Your task to perform on an android device: turn on sleep mode Image 0: 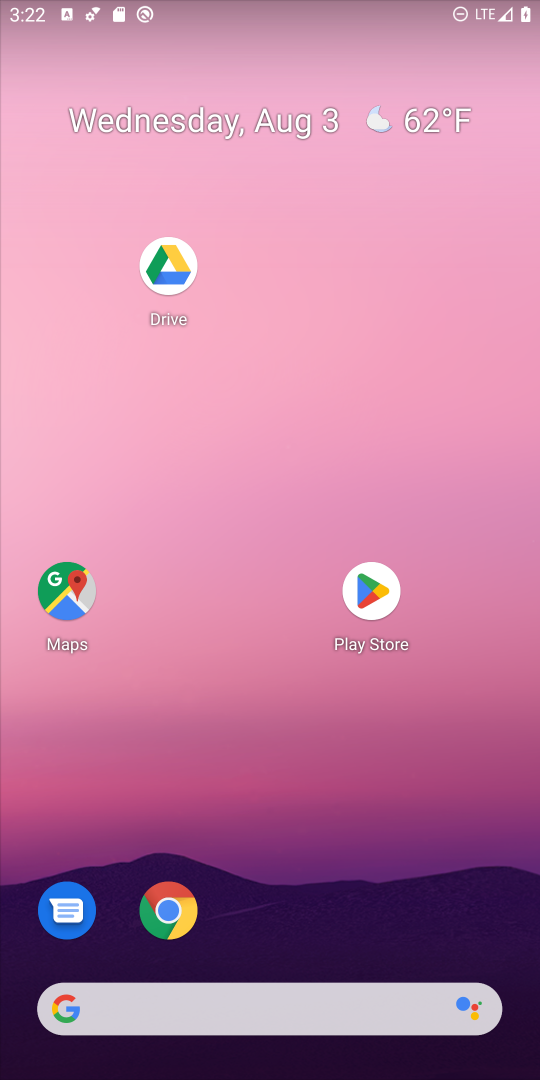
Step 0: drag from (332, 645) to (400, 0)
Your task to perform on an android device: turn on sleep mode Image 1: 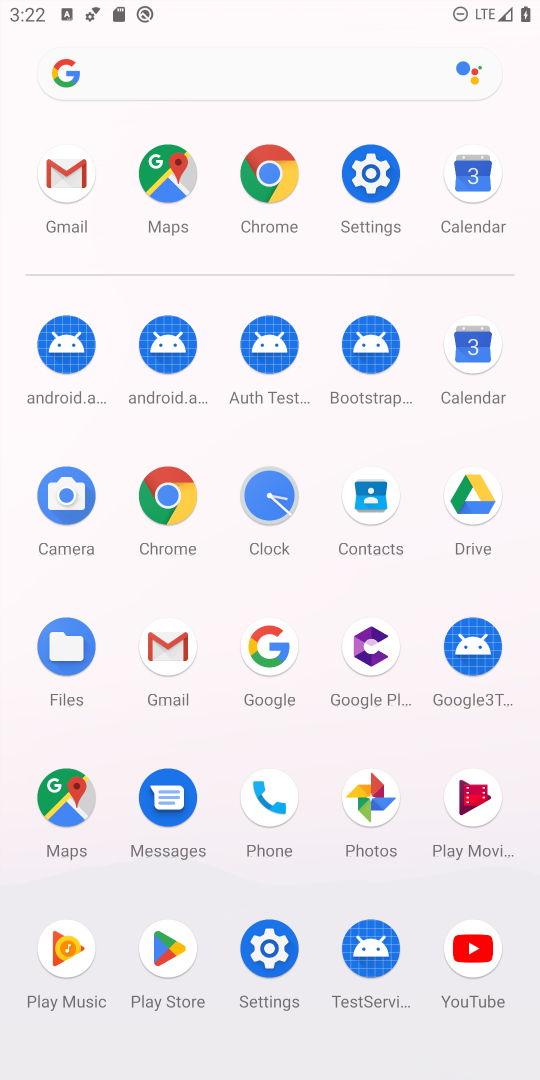
Step 1: click (381, 177)
Your task to perform on an android device: turn on sleep mode Image 2: 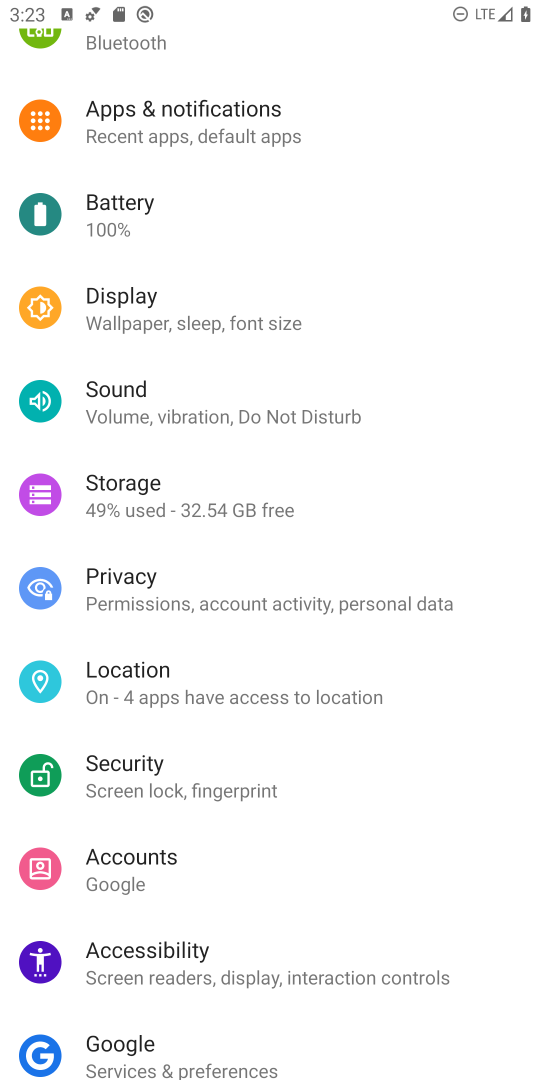
Step 2: click (217, 315)
Your task to perform on an android device: turn on sleep mode Image 3: 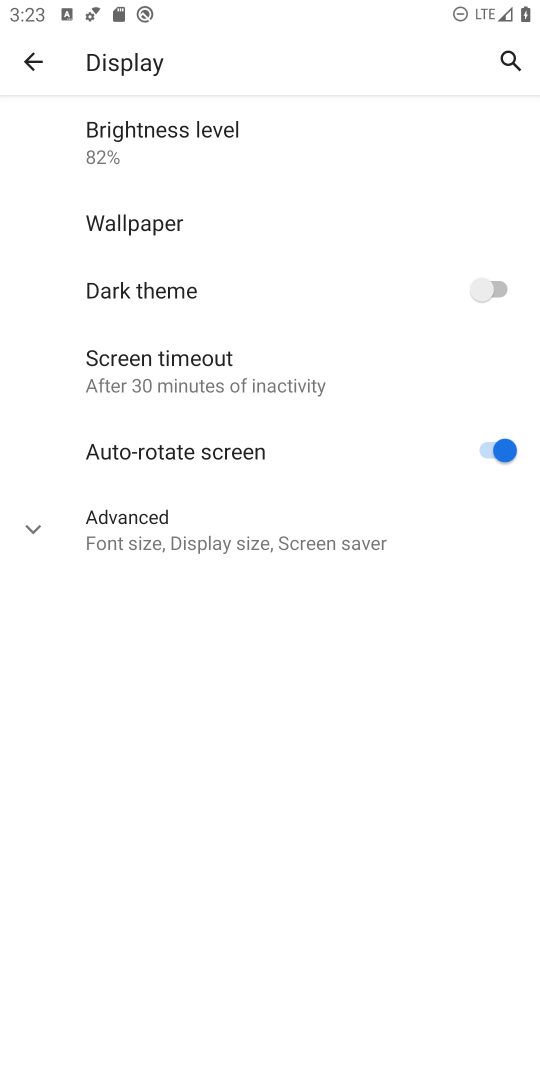
Step 3: task complete